Your task to perform on an android device: Is it going to rain tomorrow? Image 0: 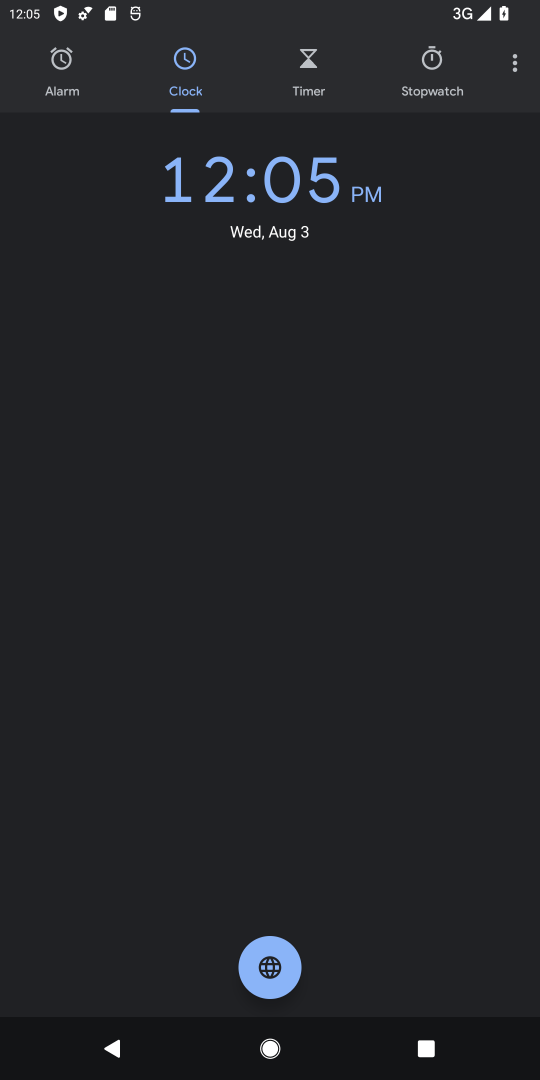
Step 0: drag from (166, 550) to (116, 286)
Your task to perform on an android device: Is it going to rain tomorrow? Image 1: 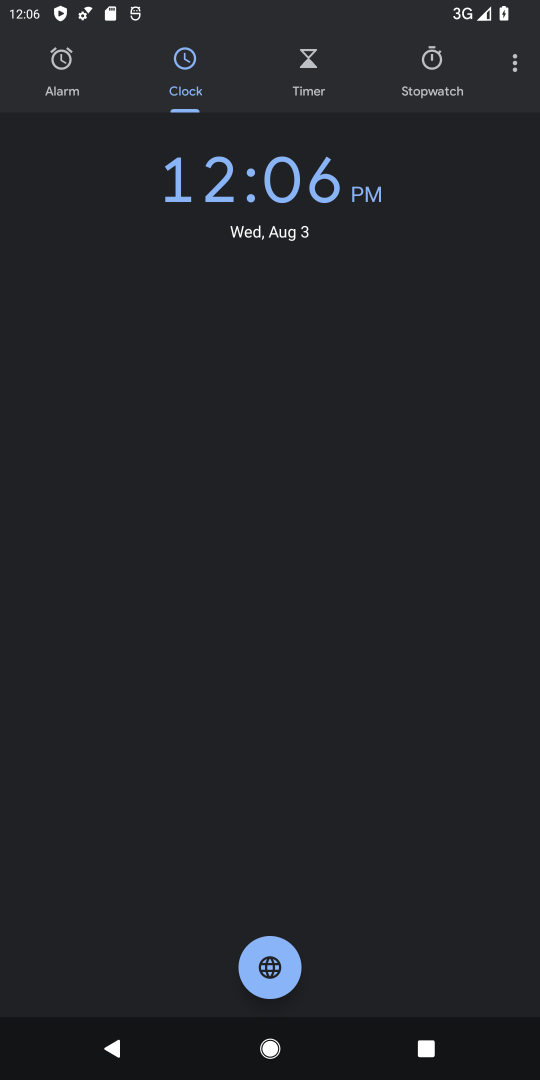
Step 1: press home button
Your task to perform on an android device: Is it going to rain tomorrow? Image 2: 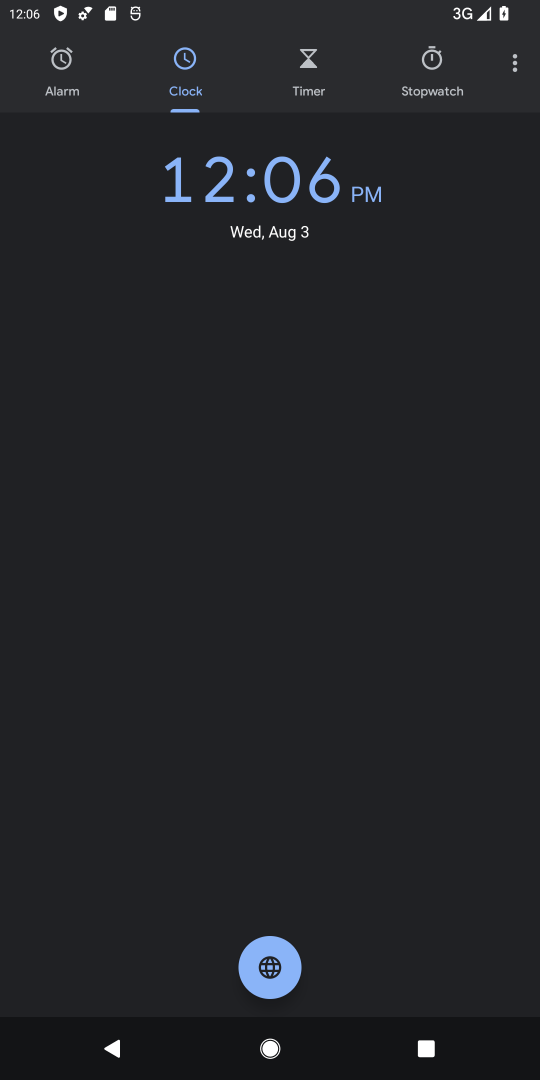
Step 2: press home button
Your task to perform on an android device: Is it going to rain tomorrow? Image 3: 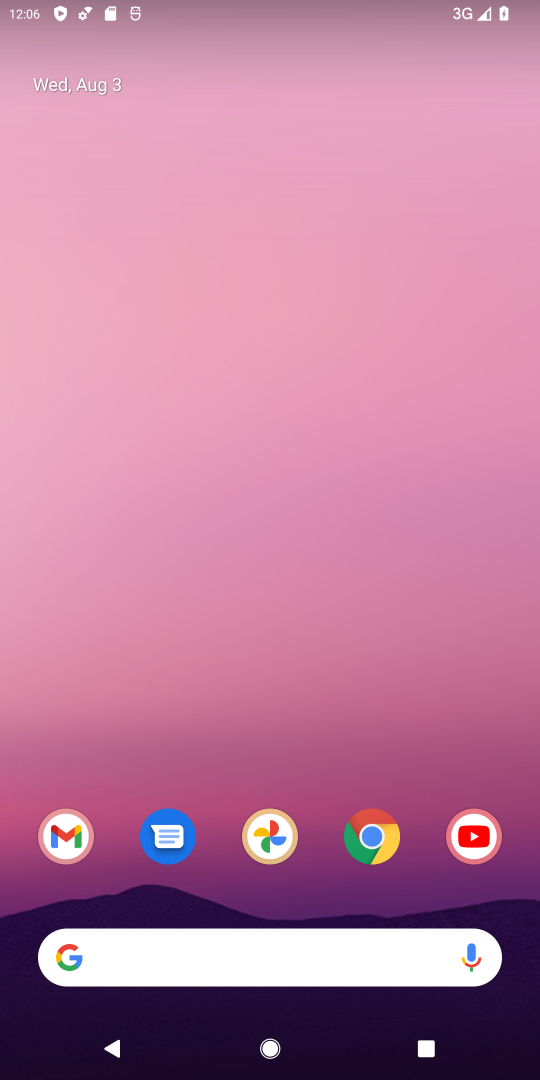
Step 3: click (194, 967)
Your task to perform on an android device: Is it going to rain tomorrow? Image 4: 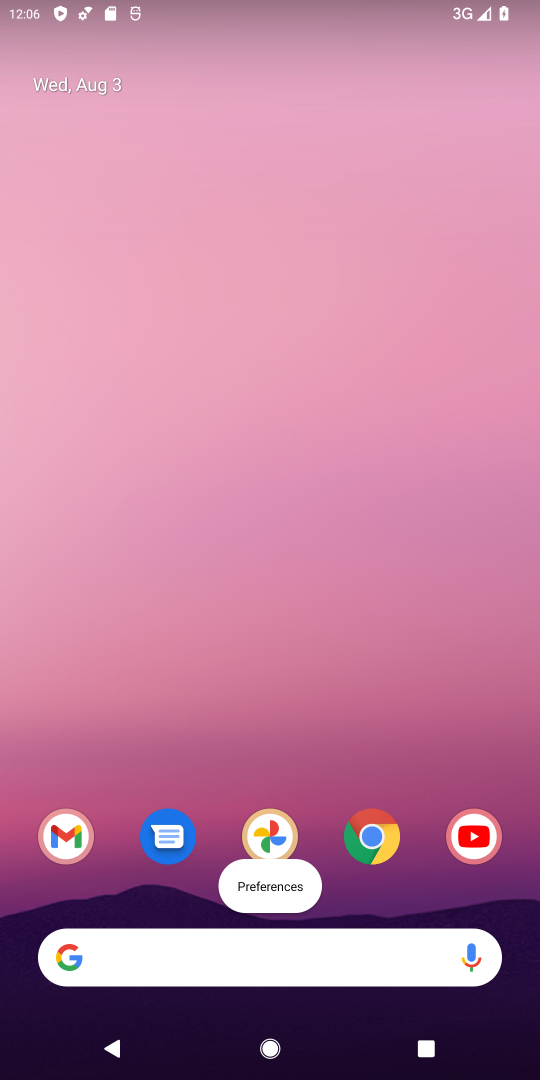
Step 4: click (228, 967)
Your task to perform on an android device: Is it going to rain tomorrow? Image 5: 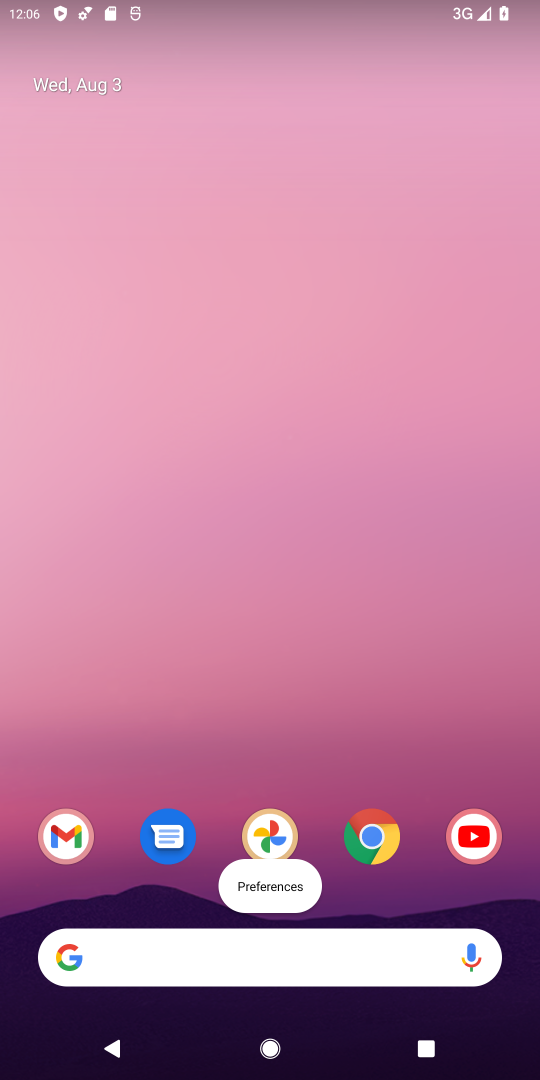
Step 5: click (212, 951)
Your task to perform on an android device: Is it going to rain tomorrow? Image 6: 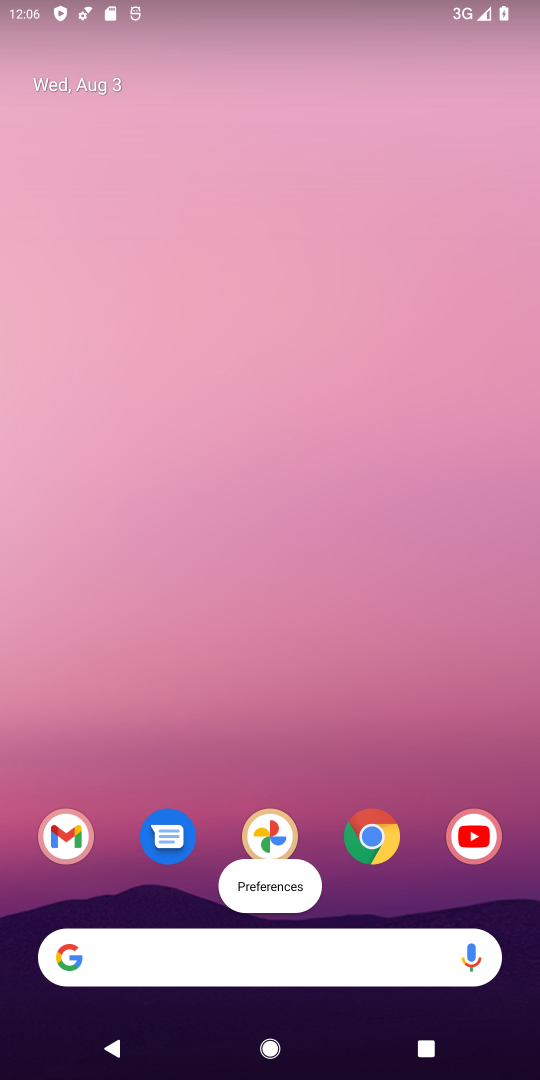
Step 6: click (129, 945)
Your task to perform on an android device: Is it going to rain tomorrow? Image 7: 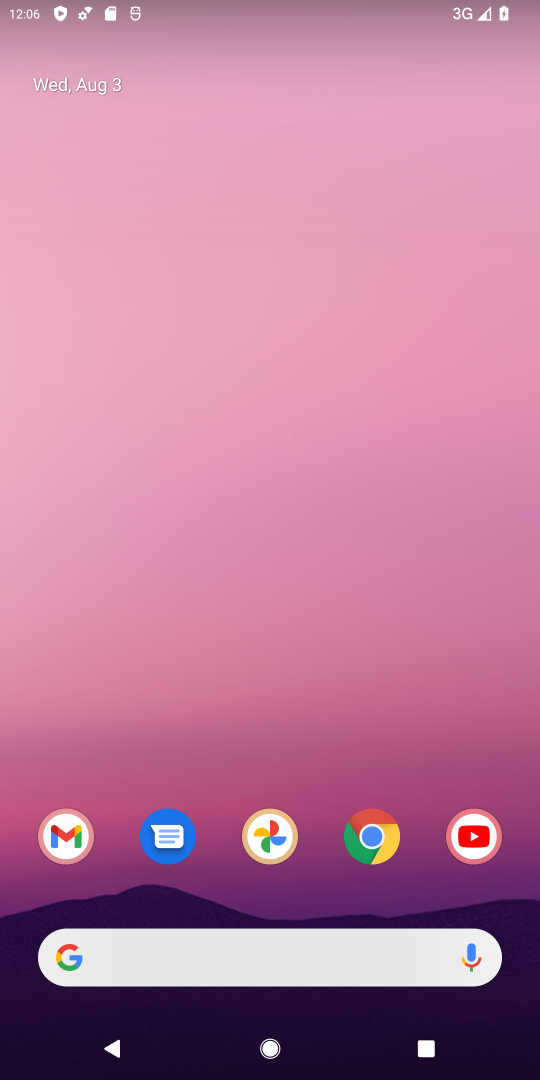
Step 7: click (129, 947)
Your task to perform on an android device: Is it going to rain tomorrow? Image 8: 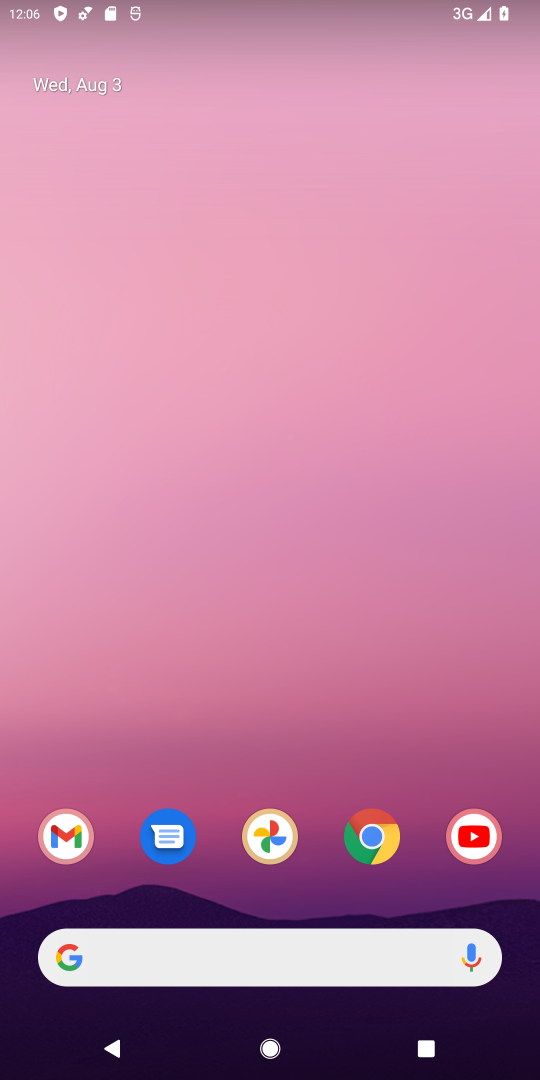
Step 8: drag from (217, 914) to (370, 173)
Your task to perform on an android device: Is it going to rain tomorrow? Image 9: 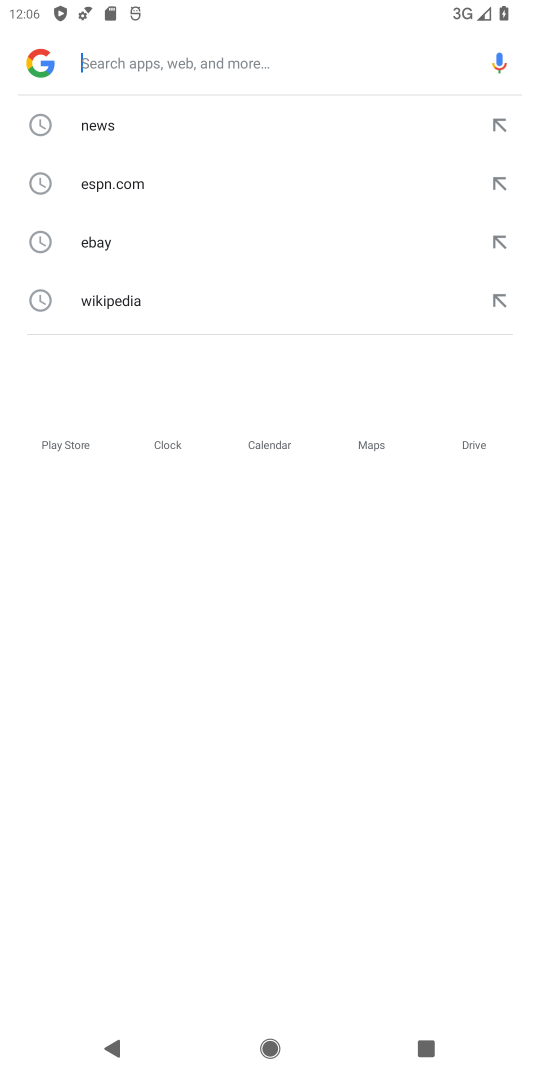
Step 9: type "Is it going to rain tomorrow?"
Your task to perform on an android device: Is it going to rain tomorrow? Image 10: 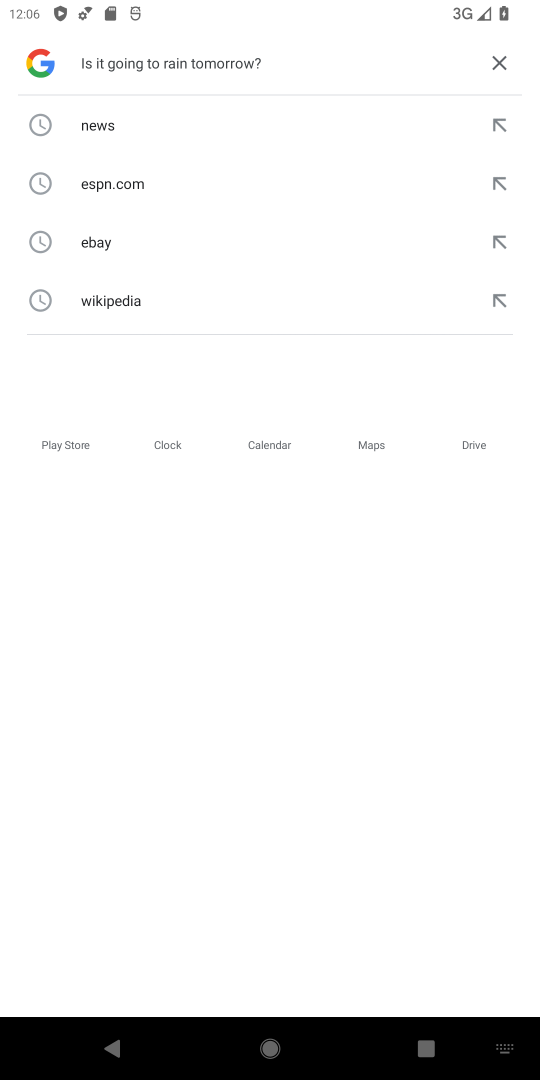
Step 10: drag from (280, 155) to (322, 755)
Your task to perform on an android device: Is it going to rain tomorrow? Image 11: 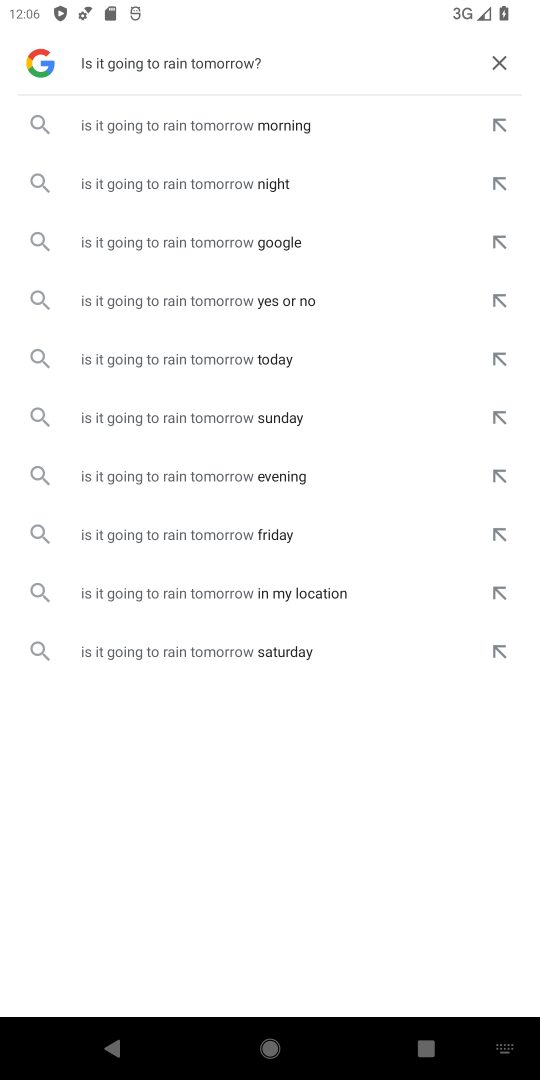
Step 11: click (200, 131)
Your task to perform on an android device: Is it going to rain tomorrow? Image 12: 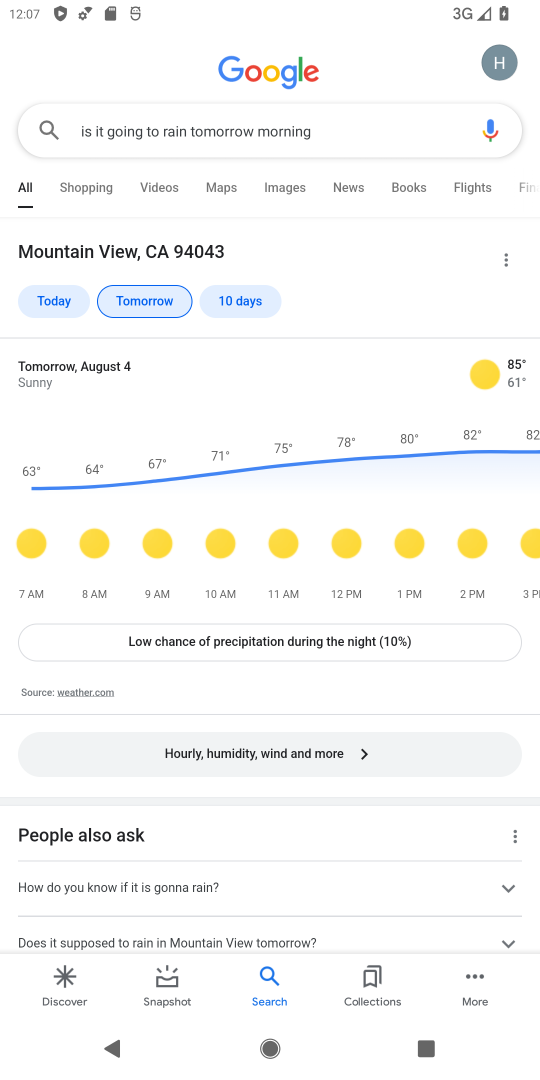
Step 12: task complete